Your task to perform on an android device: Play the last video I watched on Youtube Image 0: 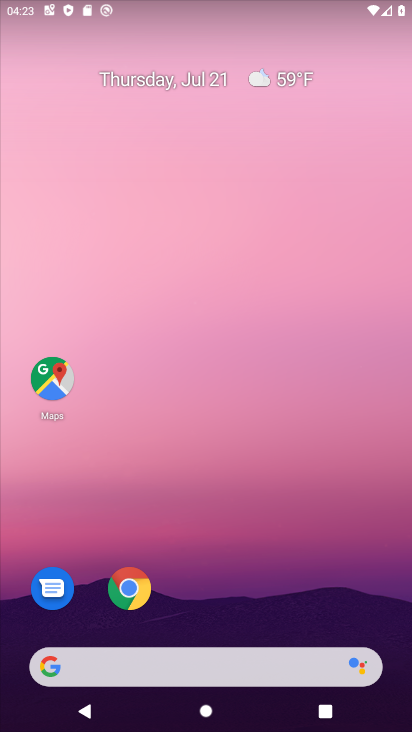
Step 0: drag from (244, 528) to (275, 91)
Your task to perform on an android device: Play the last video I watched on Youtube Image 1: 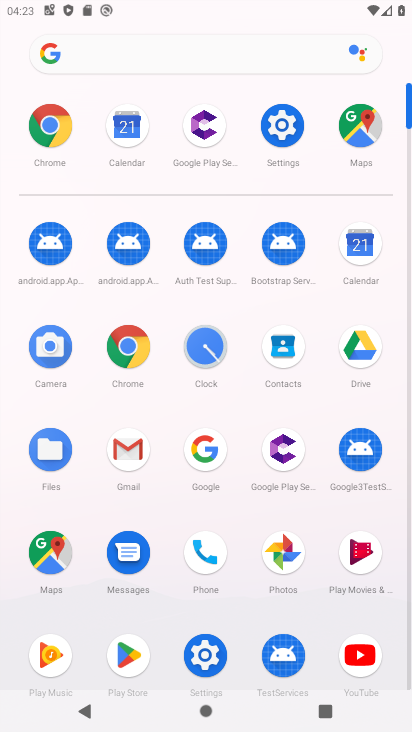
Step 1: click (355, 655)
Your task to perform on an android device: Play the last video I watched on Youtube Image 2: 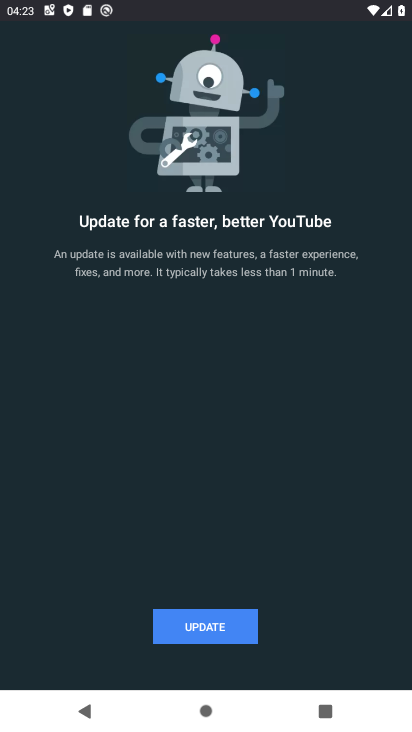
Step 2: click (230, 645)
Your task to perform on an android device: Play the last video I watched on Youtube Image 3: 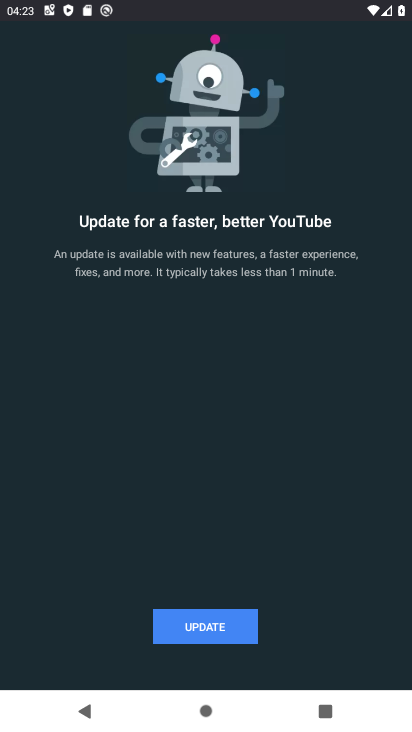
Step 3: click (221, 630)
Your task to perform on an android device: Play the last video I watched on Youtube Image 4: 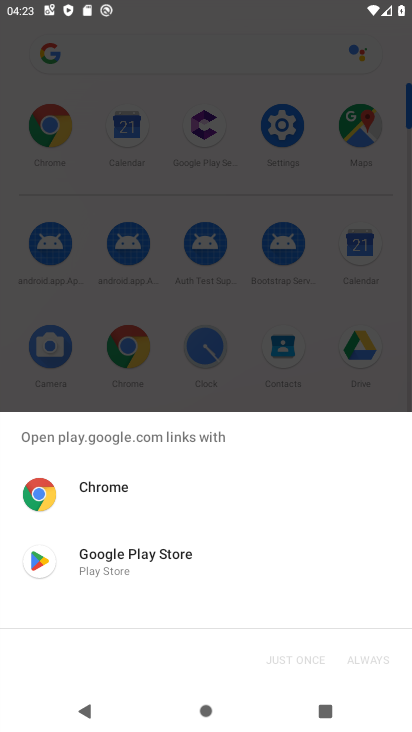
Step 4: click (113, 572)
Your task to perform on an android device: Play the last video I watched on Youtube Image 5: 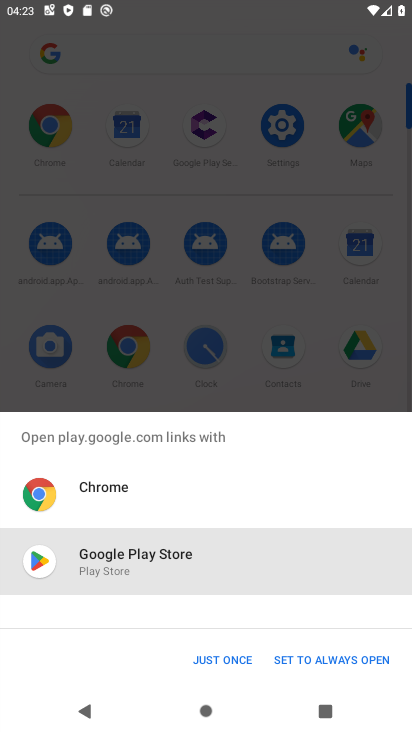
Step 5: click (201, 662)
Your task to perform on an android device: Play the last video I watched on Youtube Image 6: 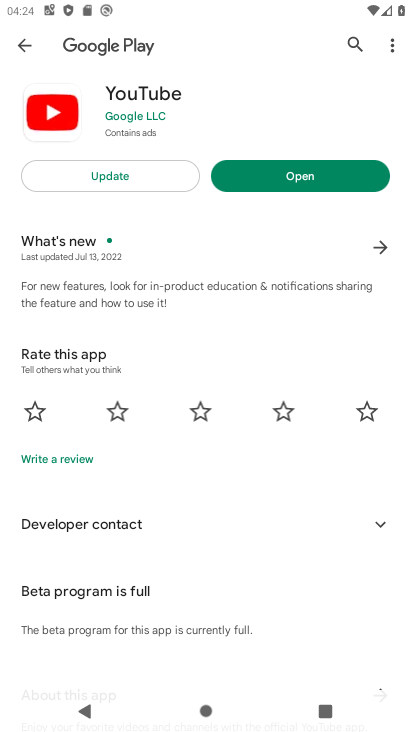
Step 6: click (132, 180)
Your task to perform on an android device: Play the last video I watched on Youtube Image 7: 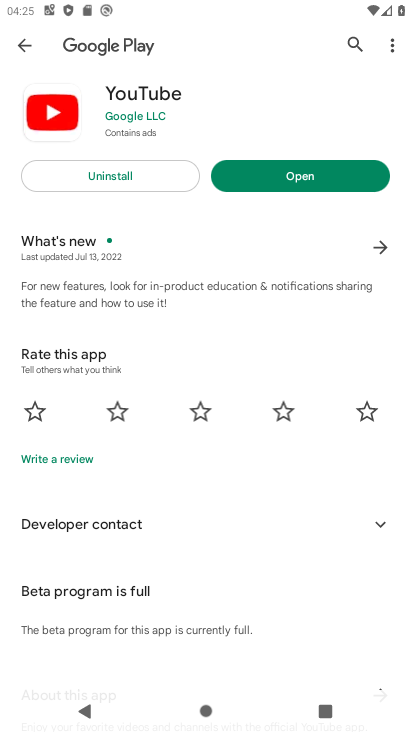
Step 7: click (260, 176)
Your task to perform on an android device: Play the last video I watched on Youtube Image 8: 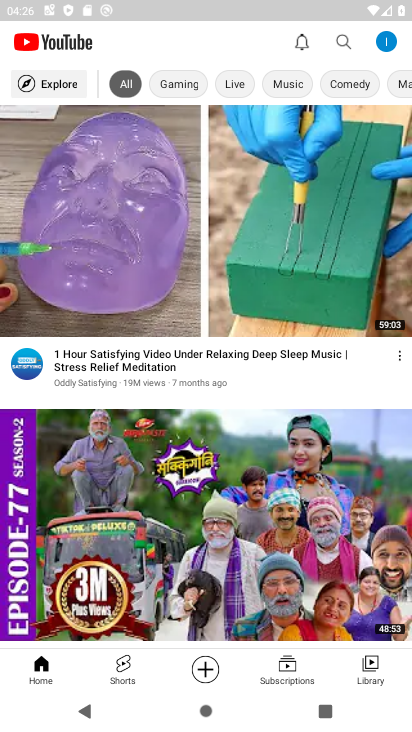
Step 8: click (367, 667)
Your task to perform on an android device: Play the last video I watched on Youtube Image 9: 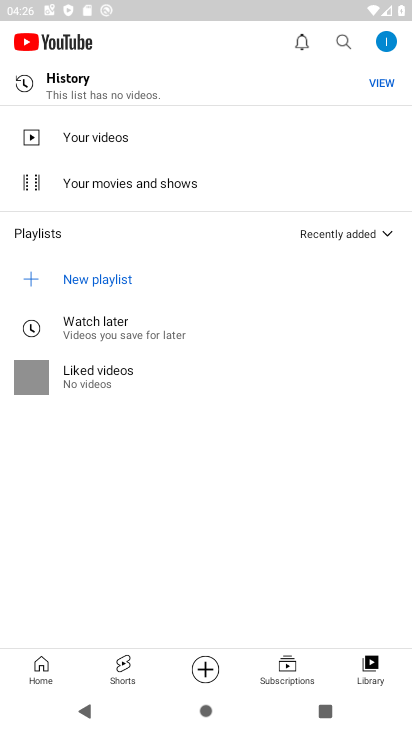
Step 9: task complete